Your task to perform on an android device: empty trash in google photos Image 0: 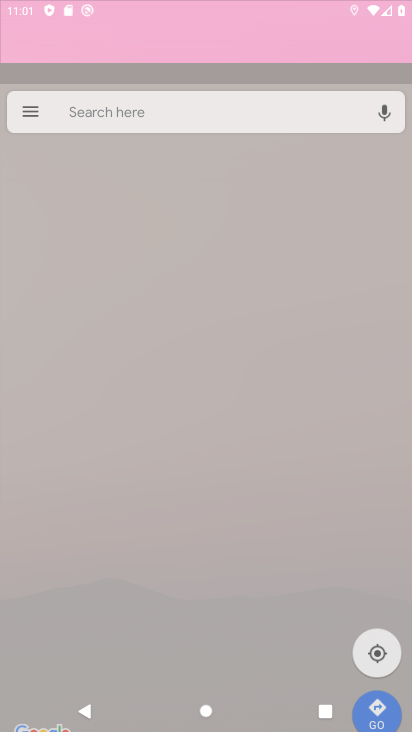
Step 0: press home button
Your task to perform on an android device: empty trash in google photos Image 1: 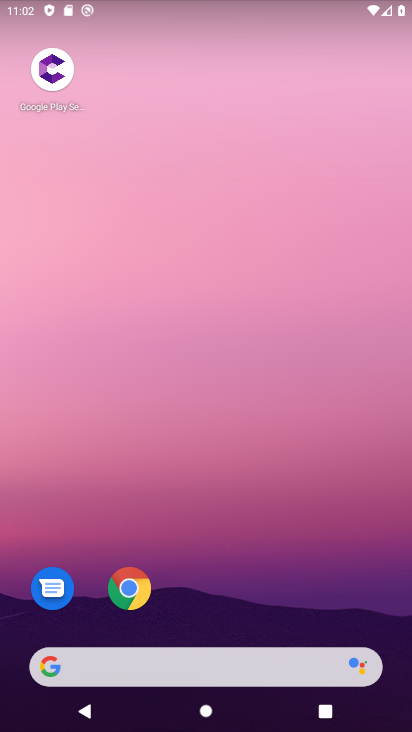
Step 1: drag from (243, 686) to (109, 130)
Your task to perform on an android device: empty trash in google photos Image 2: 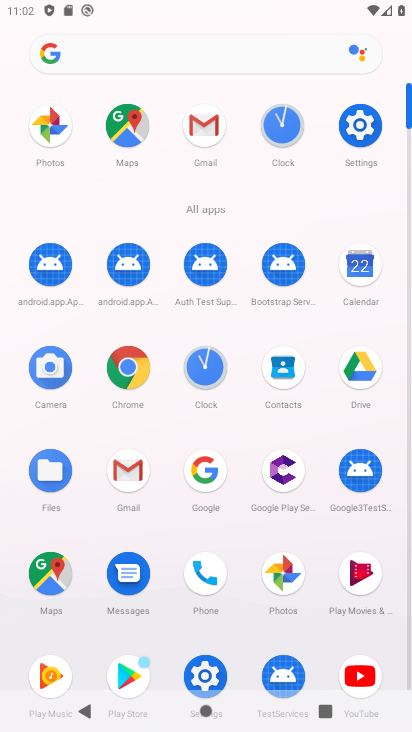
Step 2: click (281, 572)
Your task to perform on an android device: empty trash in google photos Image 3: 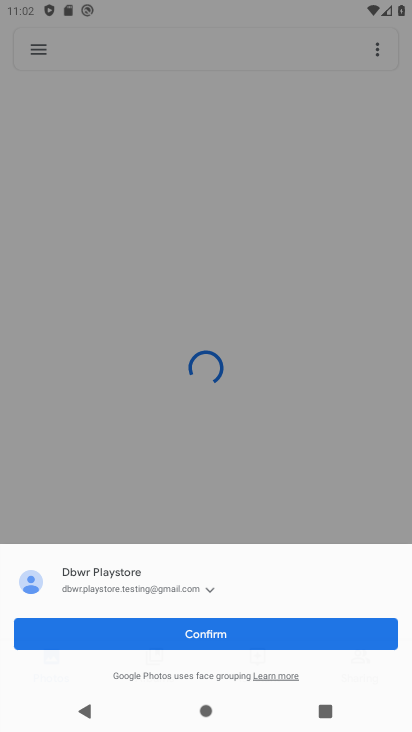
Step 3: click (145, 53)
Your task to perform on an android device: empty trash in google photos Image 4: 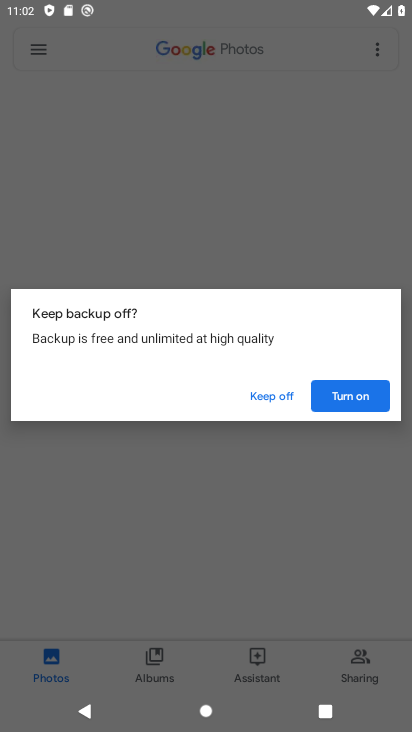
Step 4: click (275, 388)
Your task to perform on an android device: empty trash in google photos Image 5: 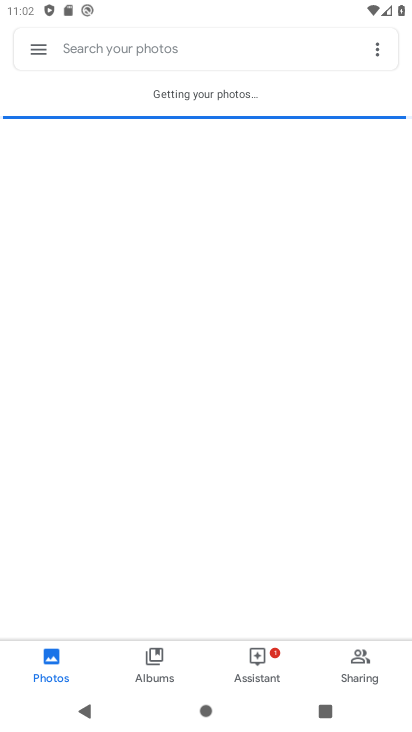
Step 5: click (150, 45)
Your task to perform on an android device: empty trash in google photos Image 6: 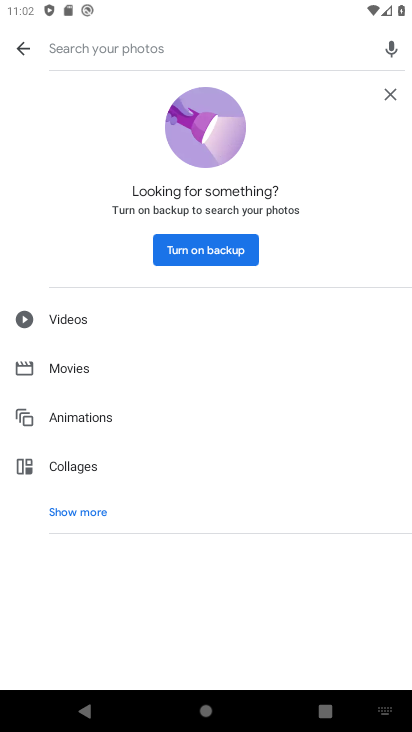
Step 6: click (202, 236)
Your task to perform on an android device: empty trash in google photos Image 7: 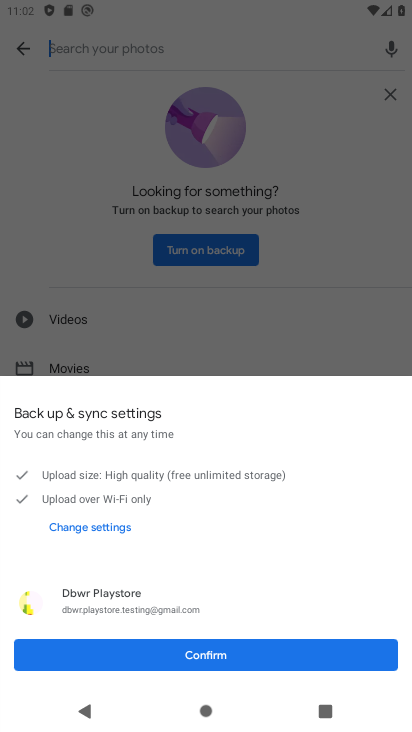
Step 7: click (185, 651)
Your task to perform on an android device: empty trash in google photos Image 8: 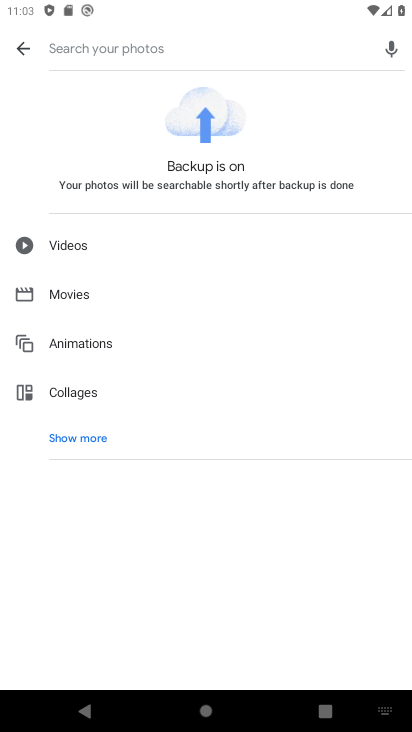
Step 8: click (108, 40)
Your task to perform on an android device: empty trash in google photos Image 9: 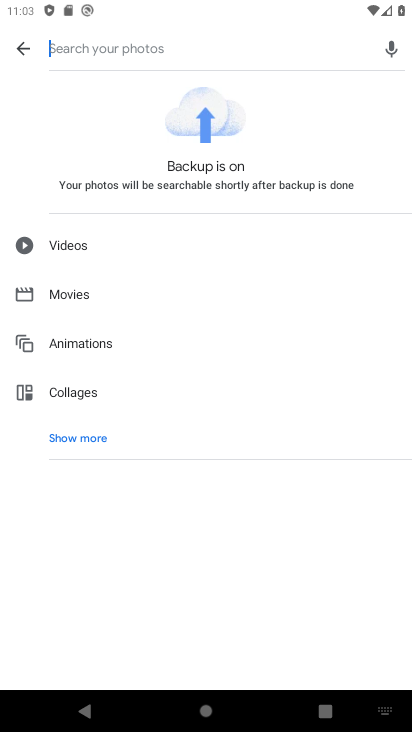
Step 9: click (384, 720)
Your task to perform on an android device: empty trash in google photos Image 10: 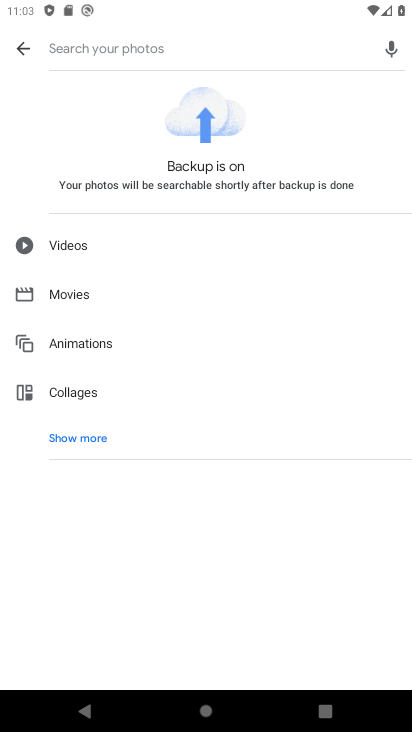
Step 10: click (384, 720)
Your task to perform on an android device: empty trash in google photos Image 11: 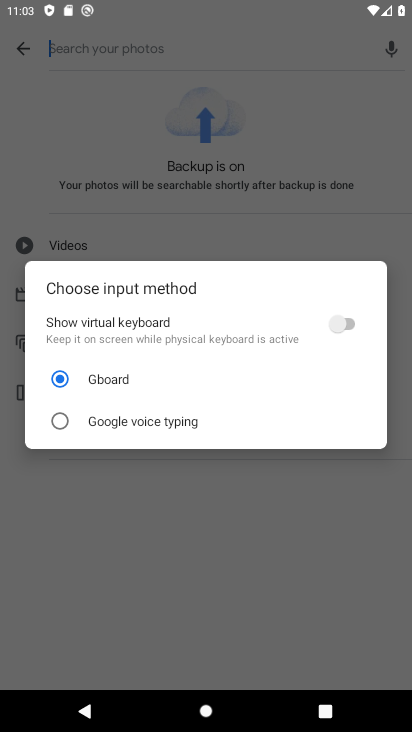
Step 11: click (344, 312)
Your task to perform on an android device: empty trash in google photos Image 12: 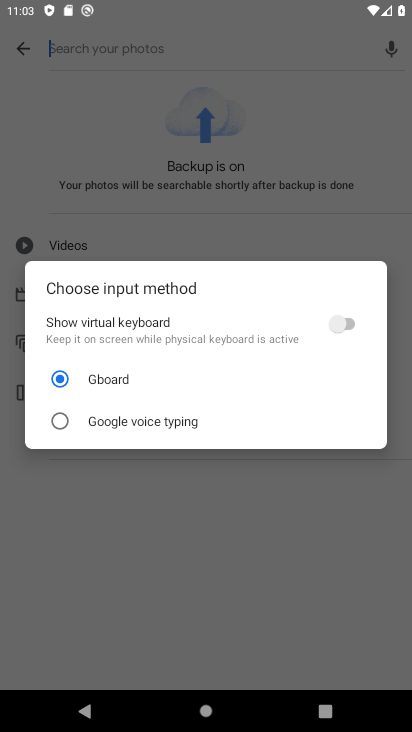
Step 12: click (347, 324)
Your task to perform on an android device: empty trash in google photos Image 13: 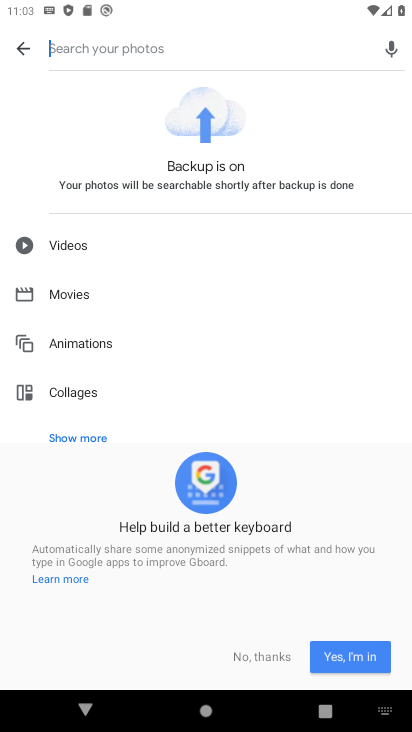
Step 13: click (254, 647)
Your task to perform on an android device: empty trash in google photos Image 14: 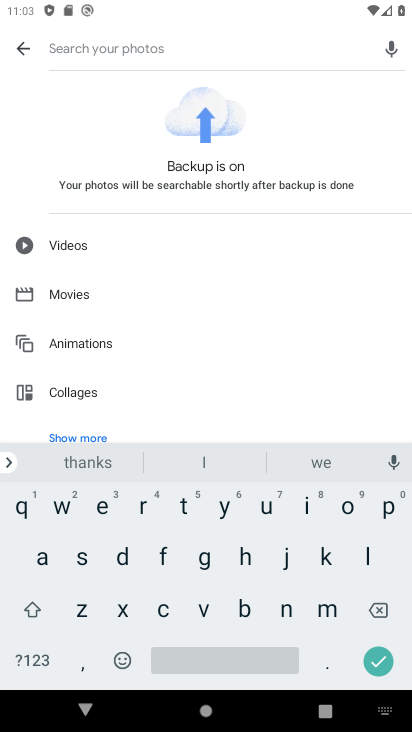
Step 14: click (186, 503)
Your task to perform on an android device: empty trash in google photos Image 15: 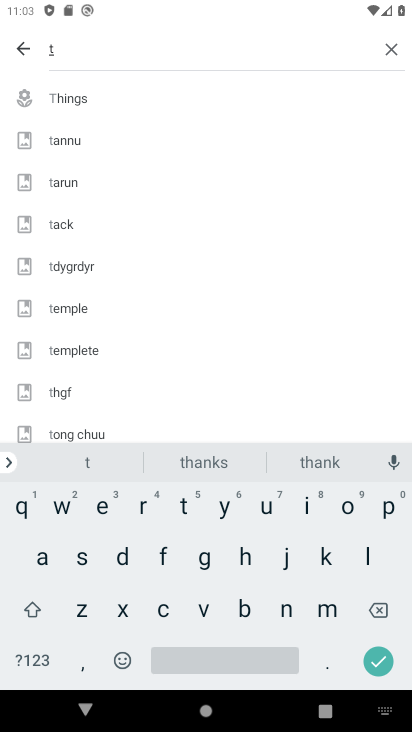
Step 15: click (142, 505)
Your task to perform on an android device: empty trash in google photos Image 16: 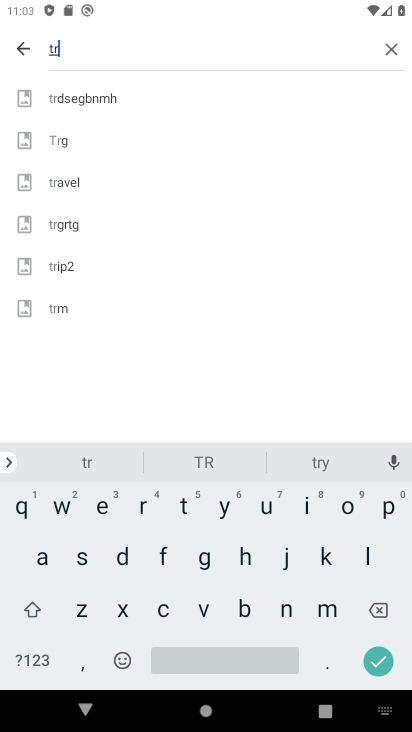
Step 16: click (42, 560)
Your task to perform on an android device: empty trash in google photos Image 17: 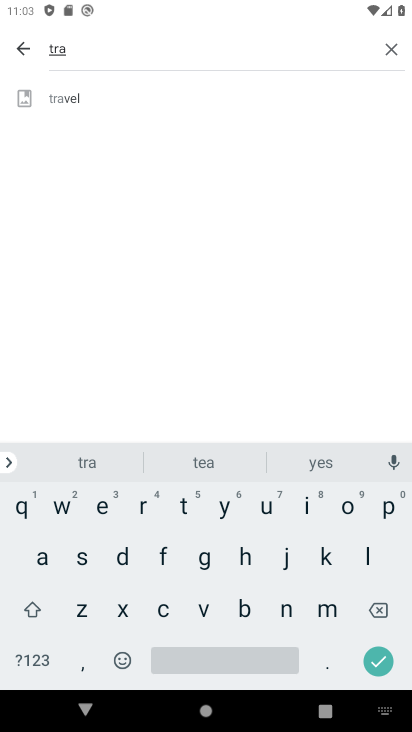
Step 17: click (83, 556)
Your task to perform on an android device: empty trash in google photos Image 18: 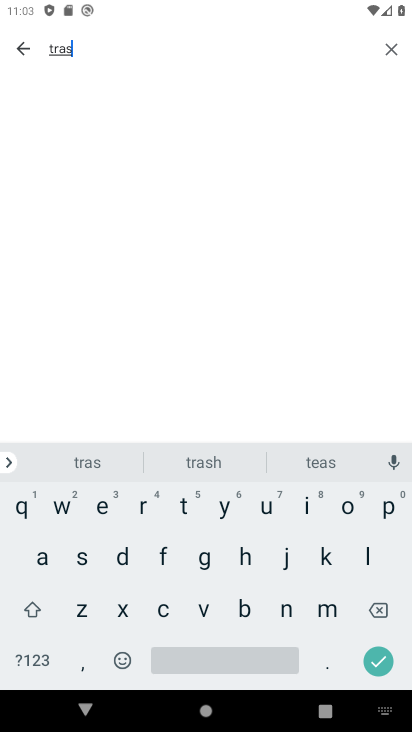
Step 18: click (242, 554)
Your task to perform on an android device: empty trash in google photos Image 19: 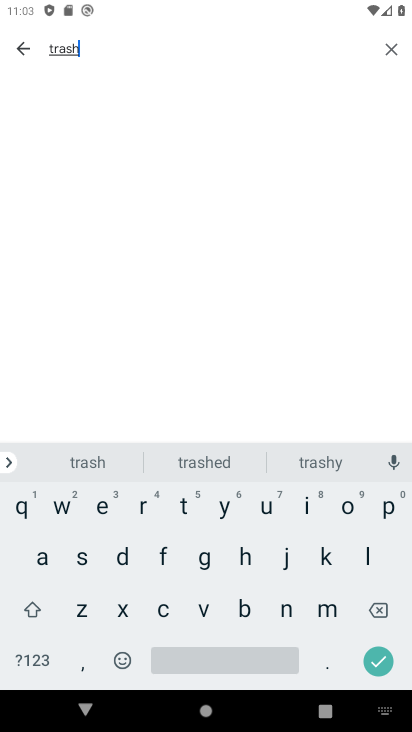
Step 19: click (389, 664)
Your task to perform on an android device: empty trash in google photos Image 20: 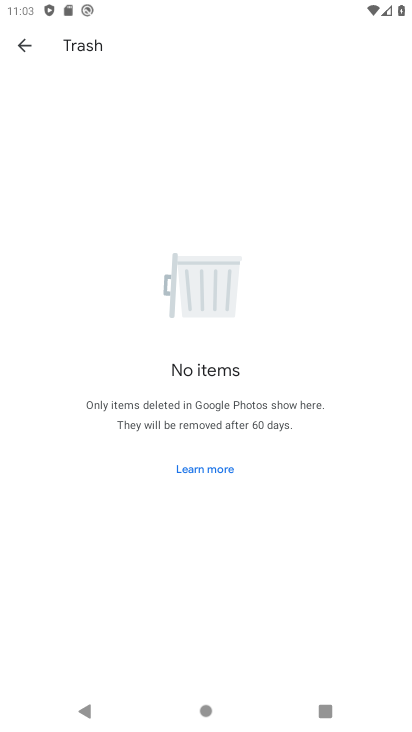
Step 20: task complete